Your task to perform on an android device: Play the last video I watched on Youtube Image 0: 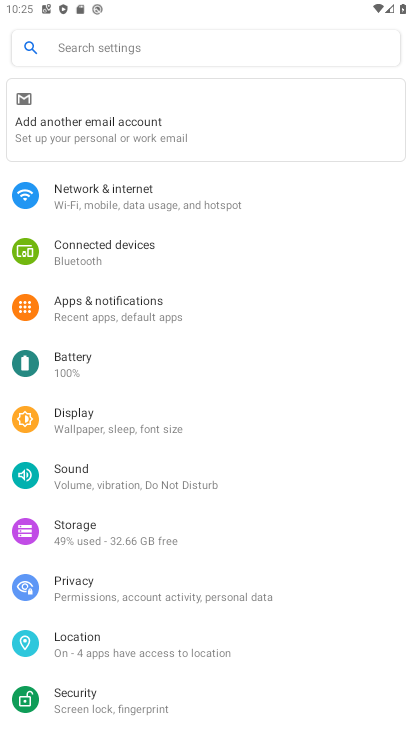
Step 0: press home button
Your task to perform on an android device: Play the last video I watched on Youtube Image 1: 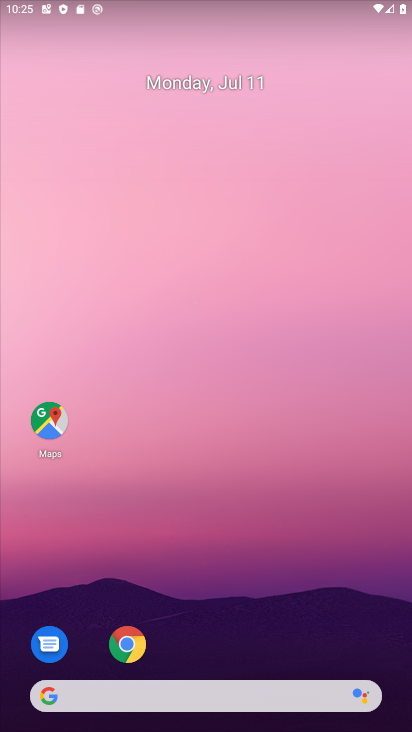
Step 1: drag from (201, 660) to (200, 159)
Your task to perform on an android device: Play the last video I watched on Youtube Image 2: 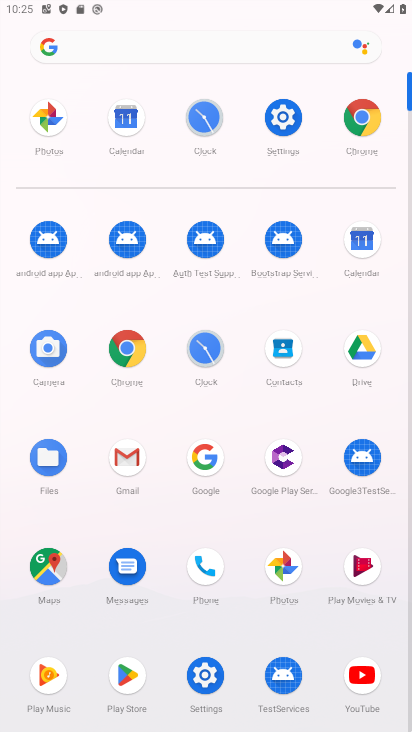
Step 2: click (362, 670)
Your task to perform on an android device: Play the last video I watched on Youtube Image 3: 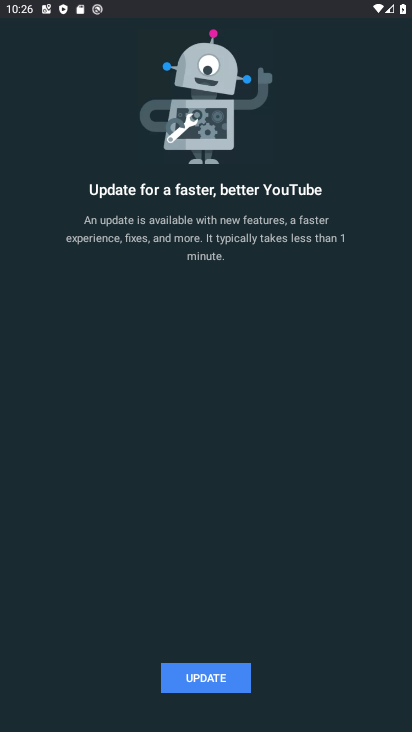
Step 3: click (210, 678)
Your task to perform on an android device: Play the last video I watched on Youtube Image 4: 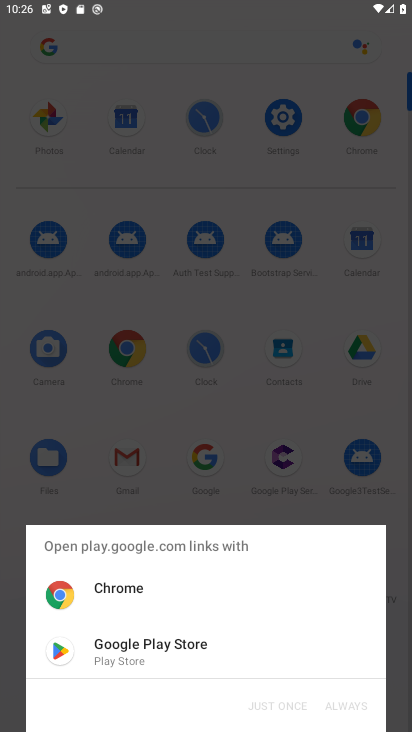
Step 4: click (134, 647)
Your task to perform on an android device: Play the last video I watched on Youtube Image 5: 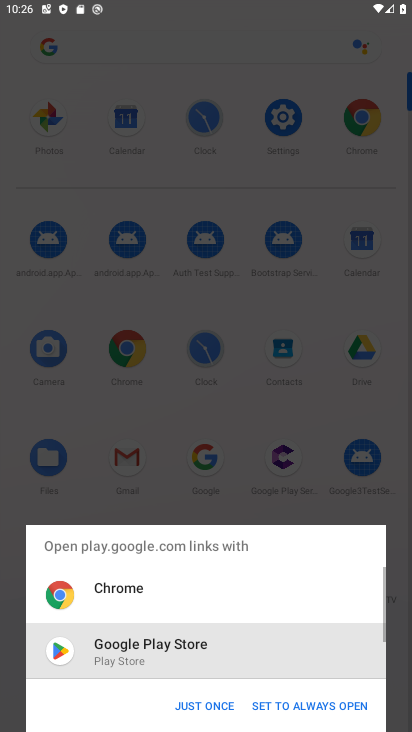
Step 5: click (206, 702)
Your task to perform on an android device: Play the last video I watched on Youtube Image 6: 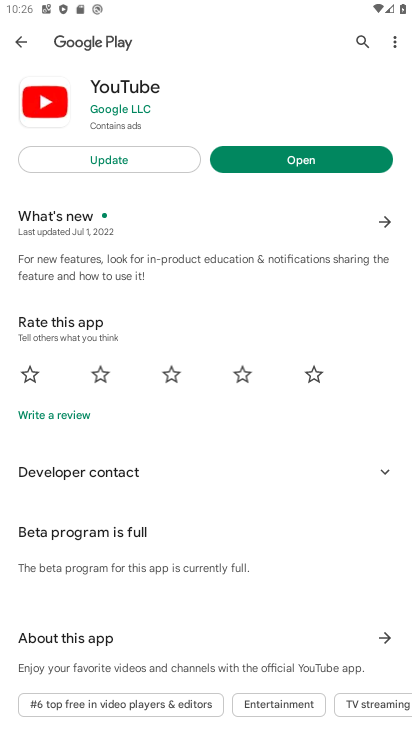
Step 6: click (106, 159)
Your task to perform on an android device: Play the last video I watched on Youtube Image 7: 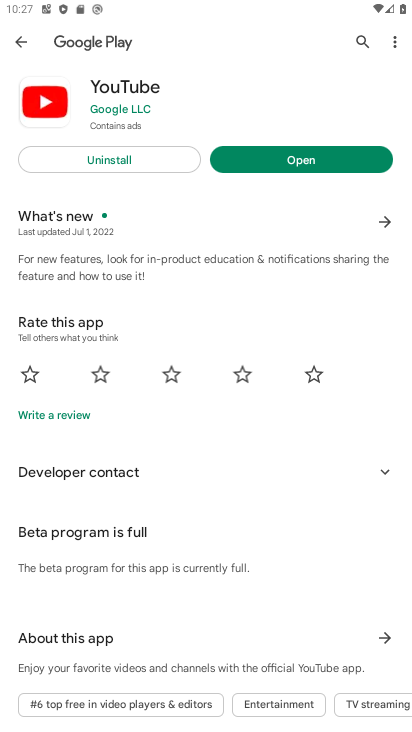
Step 7: task complete